Your task to perform on an android device: Open Yahoo.com Image 0: 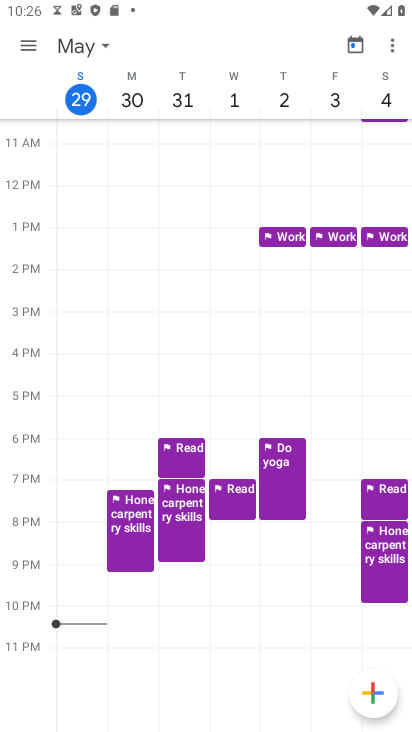
Step 0: press home button
Your task to perform on an android device: Open Yahoo.com Image 1: 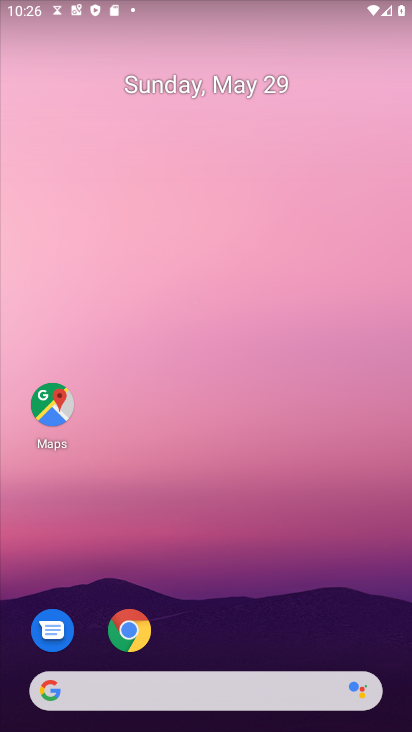
Step 1: drag from (246, 624) to (266, 73)
Your task to perform on an android device: Open Yahoo.com Image 2: 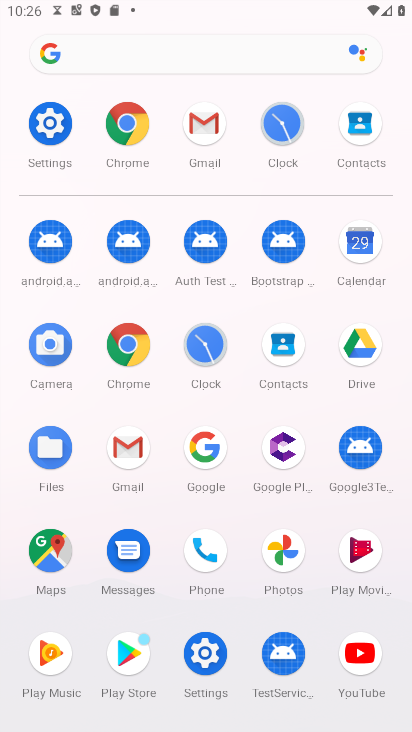
Step 2: click (131, 130)
Your task to perform on an android device: Open Yahoo.com Image 3: 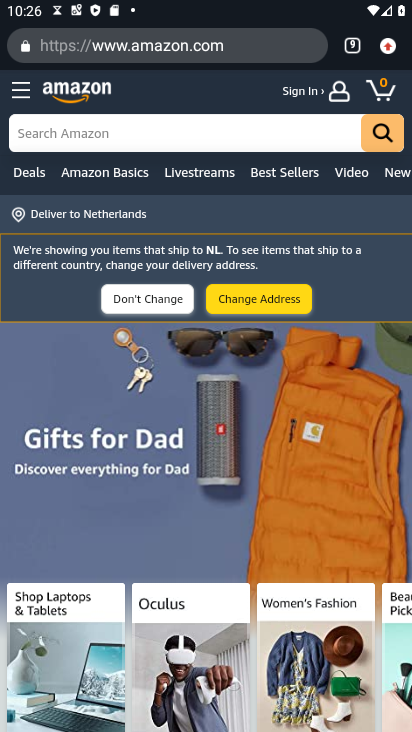
Step 3: click (355, 40)
Your task to perform on an android device: Open Yahoo.com Image 4: 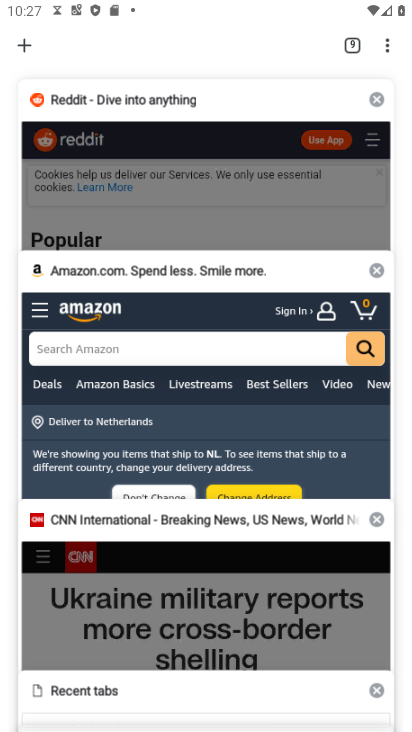
Step 4: drag from (182, 168) to (176, 509)
Your task to perform on an android device: Open Yahoo.com Image 5: 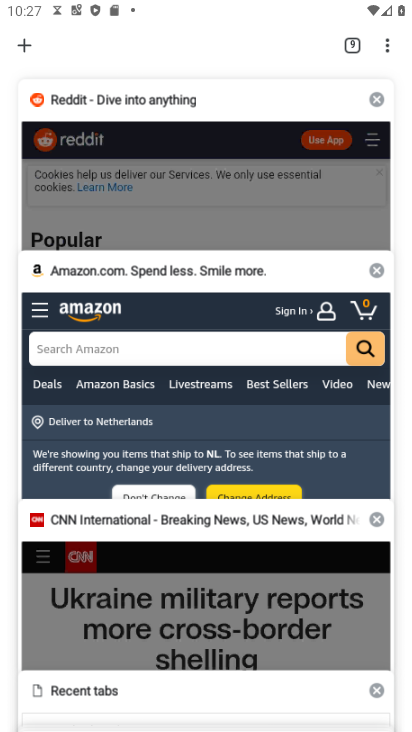
Step 5: drag from (159, 525) to (216, 141)
Your task to perform on an android device: Open Yahoo.com Image 6: 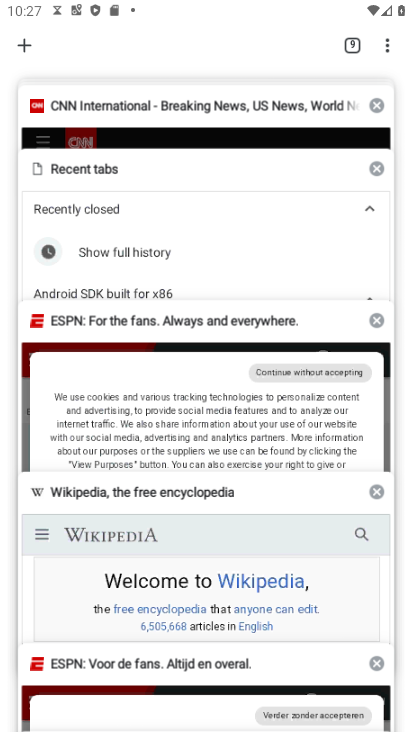
Step 6: drag from (183, 480) to (237, 90)
Your task to perform on an android device: Open Yahoo.com Image 7: 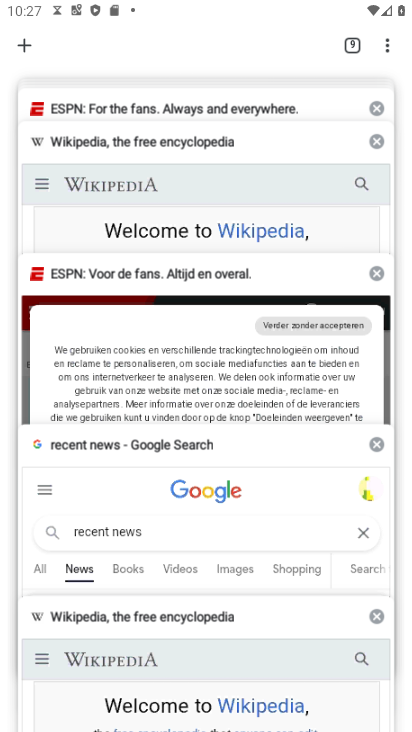
Step 7: drag from (192, 395) to (258, 54)
Your task to perform on an android device: Open Yahoo.com Image 8: 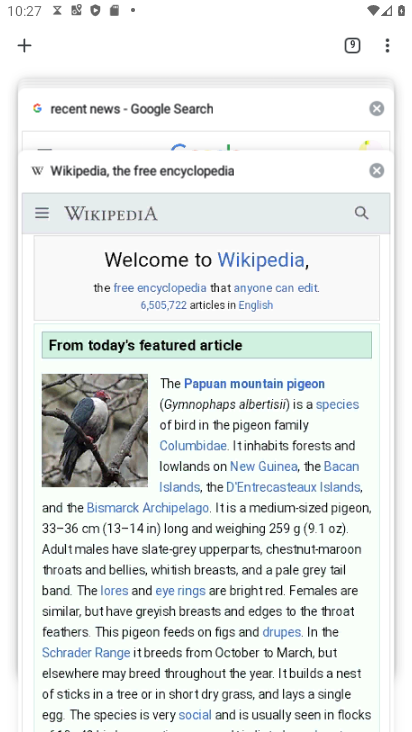
Step 8: click (29, 45)
Your task to perform on an android device: Open Yahoo.com Image 9: 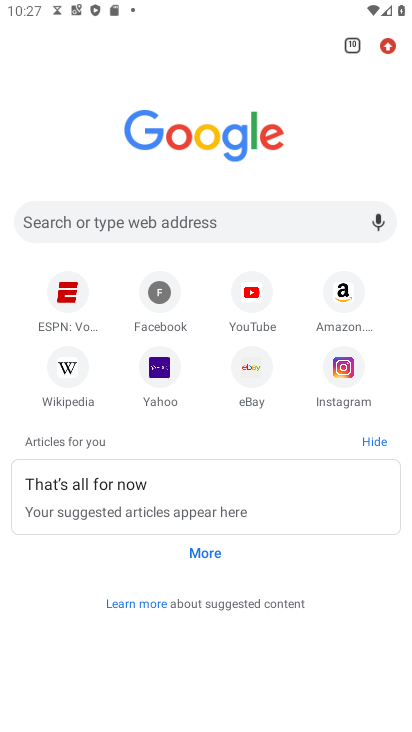
Step 9: click (154, 362)
Your task to perform on an android device: Open Yahoo.com Image 10: 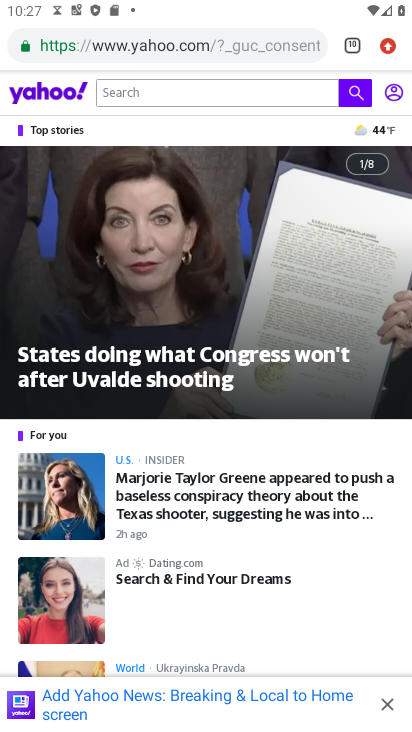
Step 10: task complete